Your task to perform on an android device: What's the weather going to be this weekend? Image 0: 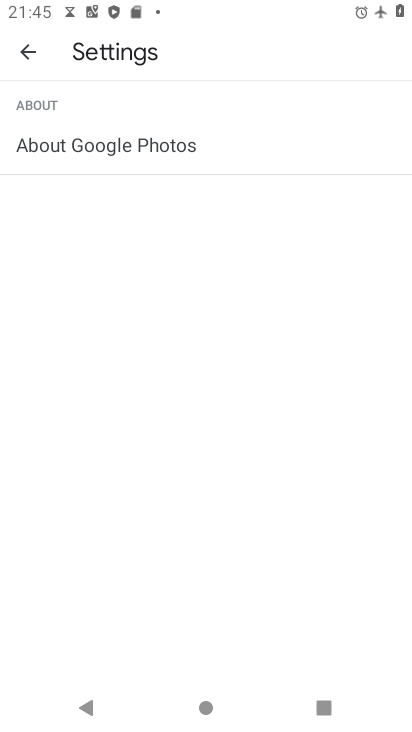
Step 0: press home button
Your task to perform on an android device: What's the weather going to be this weekend? Image 1: 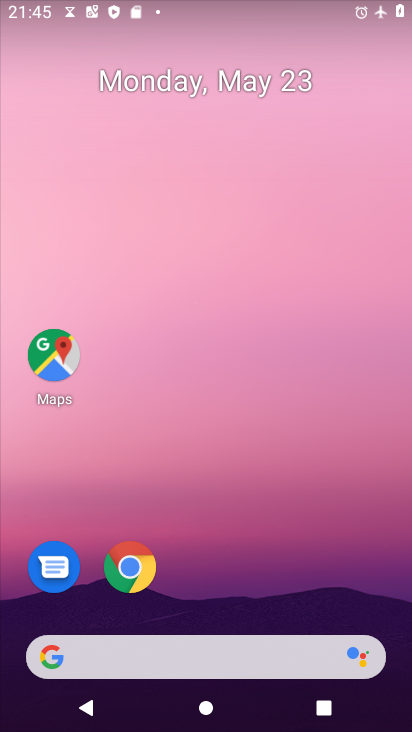
Step 1: drag from (261, 590) to (259, 215)
Your task to perform on an android device: What's the weather going to be this weekend? Image 2: 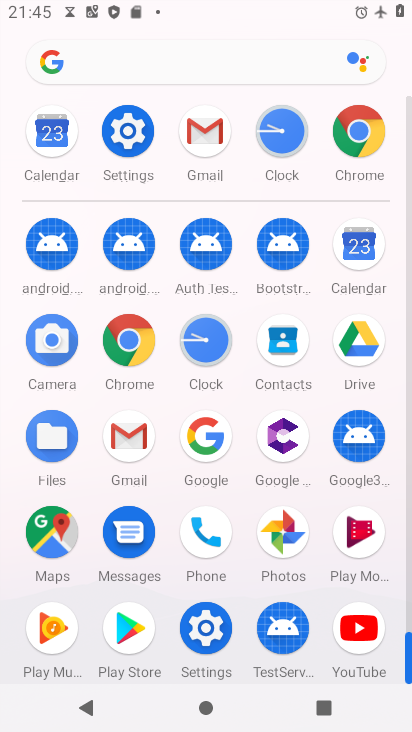
Step 2: click (366, 252)
Your task to perform on an android device: What's the weather going to be this weekend? Image 3: 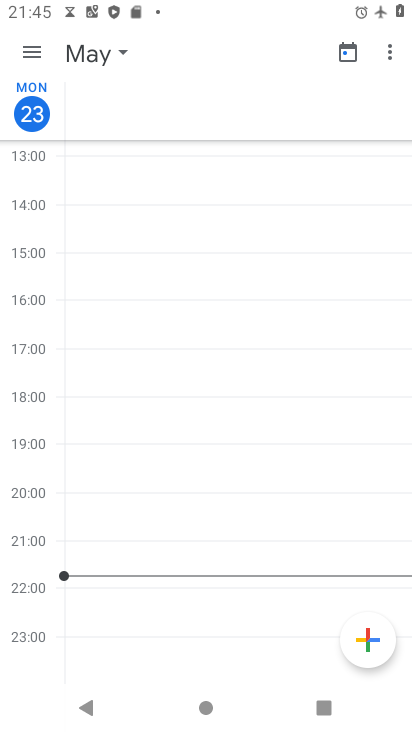
Step 3: click (22, 56)
Your task to perform on an android device: What's the weather going to be this weekend? Image 4: 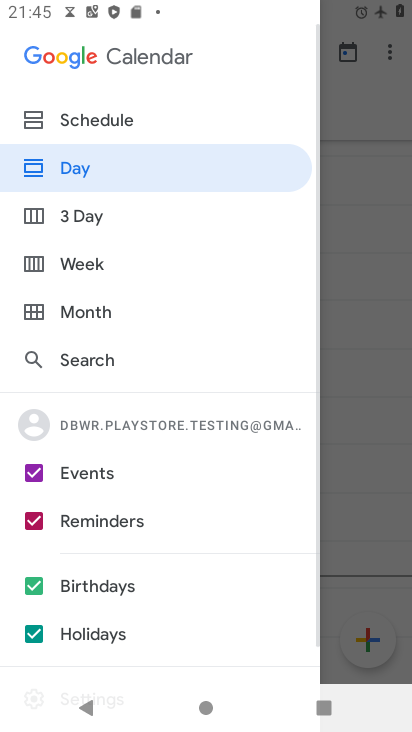
Step 4: click (109, 263)
Your task to perform on an android device: What's the weather going to be this weekend? Image 5: 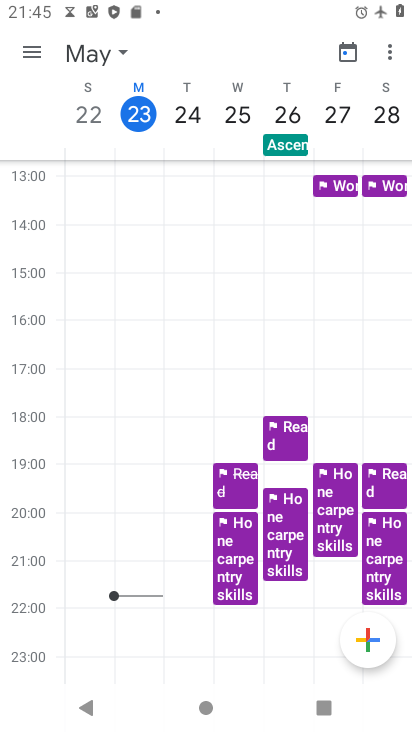
Step 5: task complete